Your task to perform on an android device: turn off data saver in the chrome app Image 0: 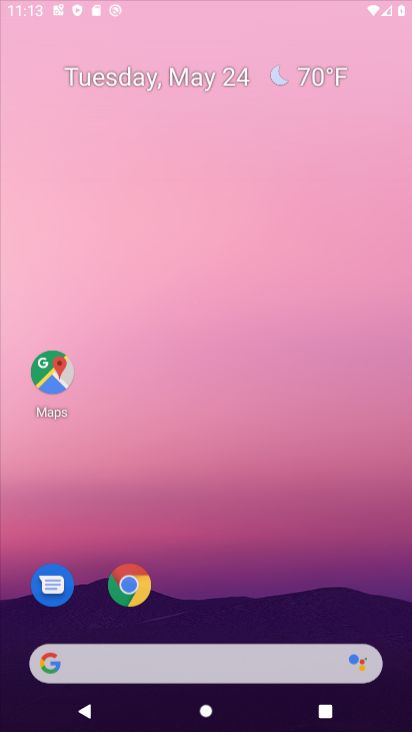
Step 0: press home button
Your task to perform on an android device: turn off data saver in the chrome app Image 1: 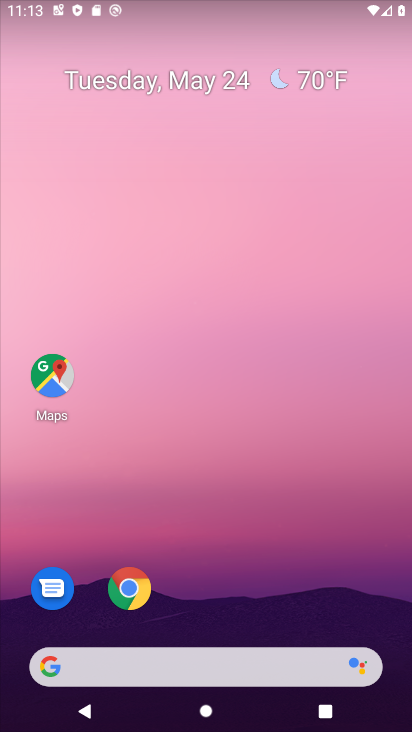
Step 1: drag from (202, 612) to (232, 98)
Your task to perform on an android device: turn off data saver in the chrome app Image 2: 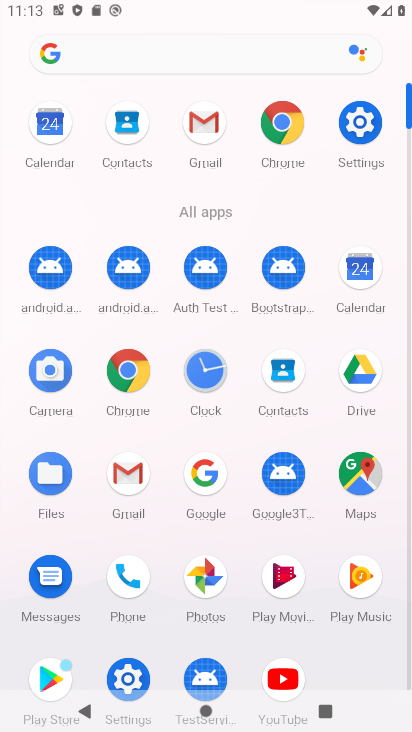
Step 2: click (127, 368)
Your task to perform on an android device: turn off data saver in the chrome app Image 3: 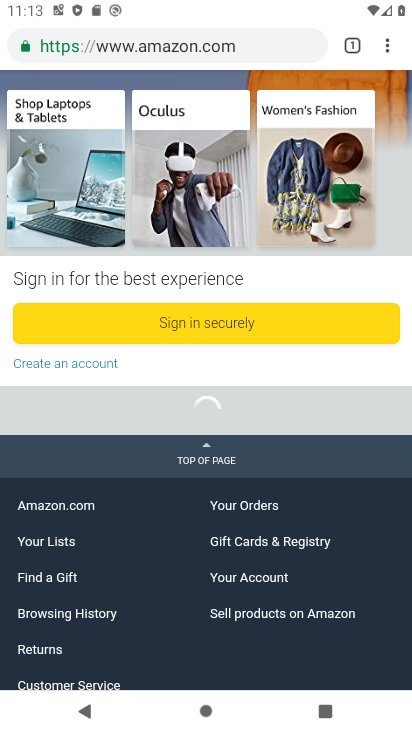
Step 3: click (381, 50)
Your task to perform on an android device: turn off data saver in the chrome app Image 4: 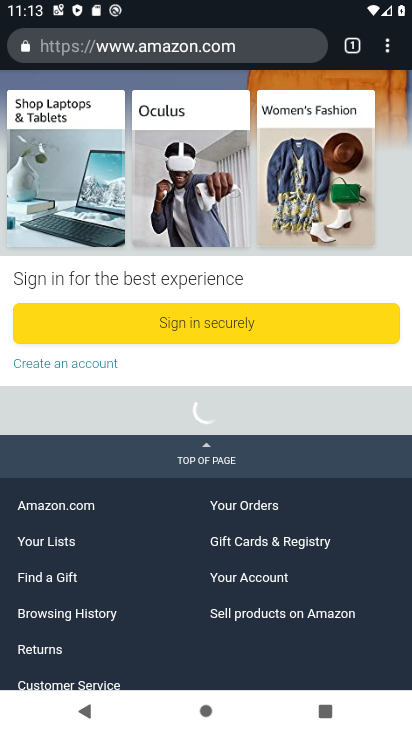
Step 4: click (388, 42)
Your task to perform on an android device: turn off data saver in the chrome app Image 5: 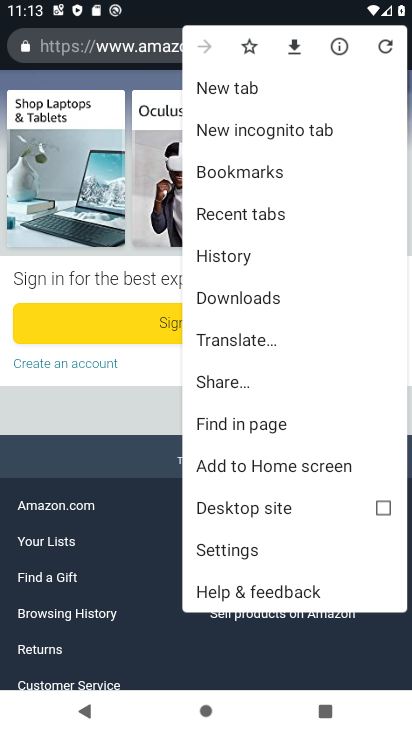
Step 5: click (271, 544)
Your task to perform on an android device: turn off data saver in the chrome app Image 6: 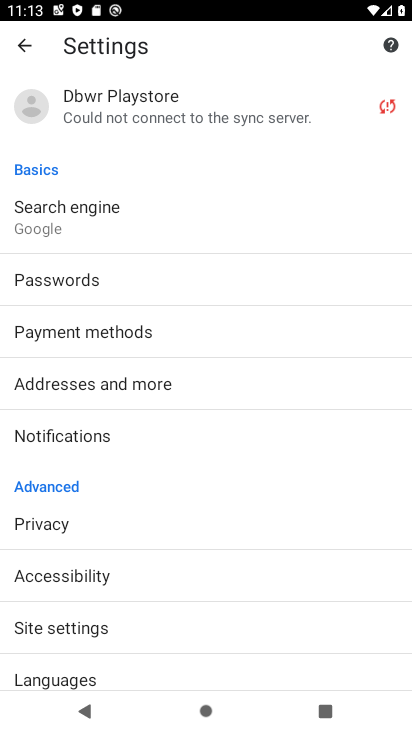
Step 6: drag from (150, 653) to (145, 278)
Your task to perform on an android device: turn off data saver in the chrome app Image 7: 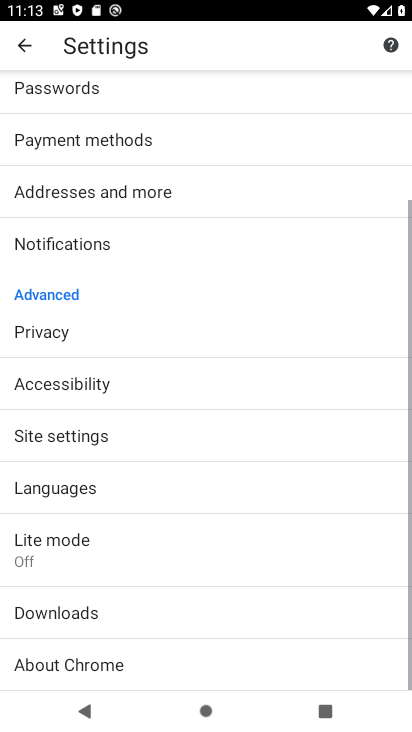
Step 7: click (55, 562)
Your task to perform on an android device: turn off data saver in the chrome app Image 8: 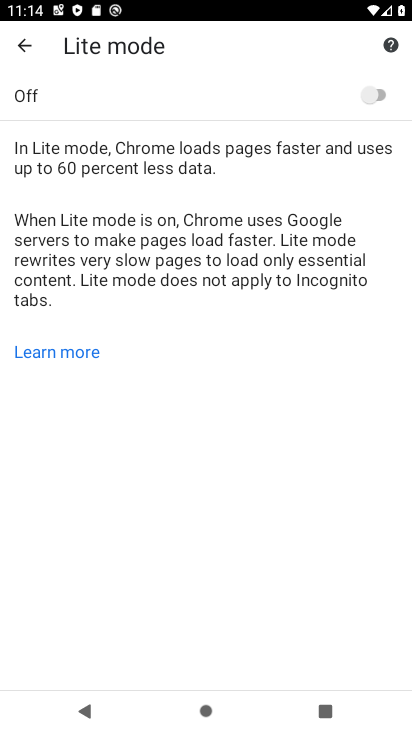
Step 8: task complete